Your task to perform on an android device: manage bookmarks in the chrome app Image 0: 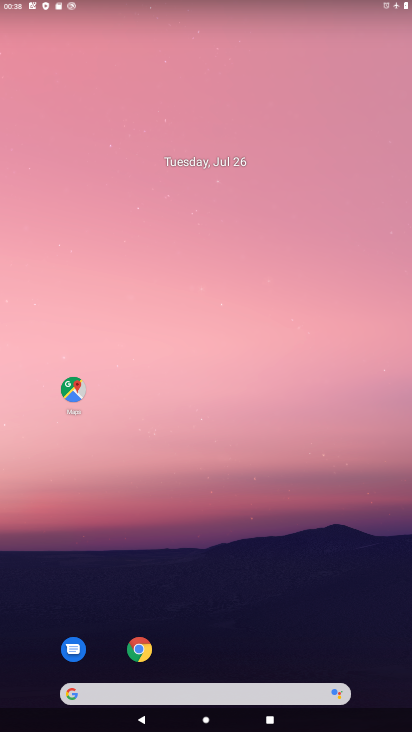
Step 0: click (140, 648)
Your task to perform on an android device: manage bookmarks in the chrome app Image 1: 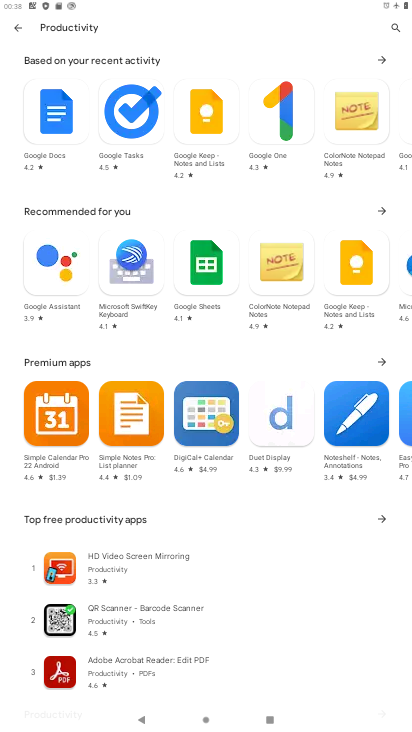
Step 1: press home button
Your task to perform on an android device: manage bookmarks in the chrome app Image 2: 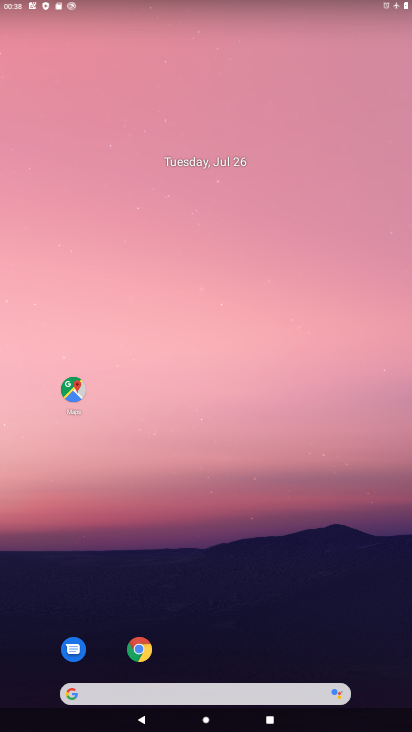
Step 2: drag from (221, 725) to (191, 123)
Your task to perform on an android device: manage bookmarks in the chrome app Image 3: 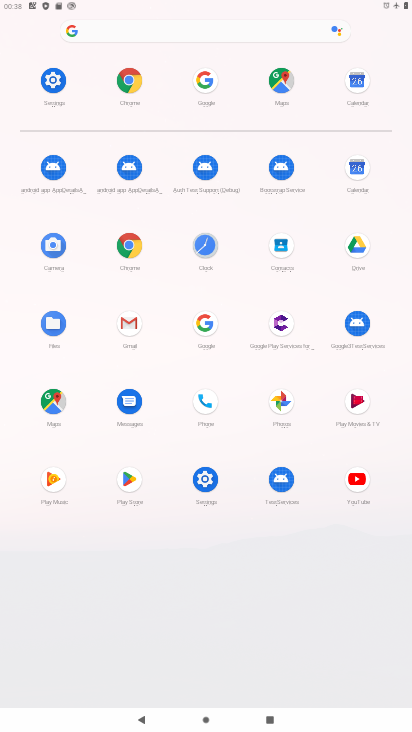
Step 3: click (127, 246)
Your task to perform on an android device: manage bookmarks in the chrome app Image 4: 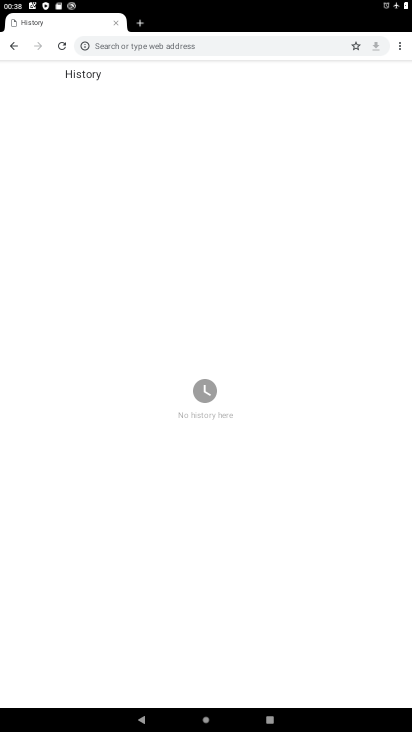
Step 4: click (402, 50)
Your task to perform on an android device: manage bookmarks in the chrome app Image 5: 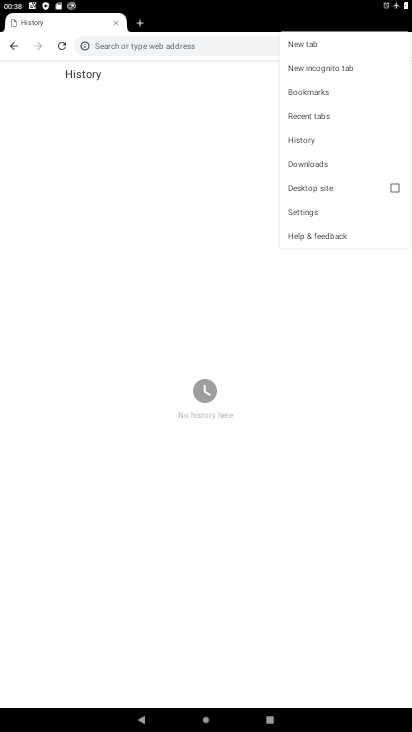
Step 5: click (308, 93)
Your task to perform on an android device: manage bookmarks in the chrome app Image 6: 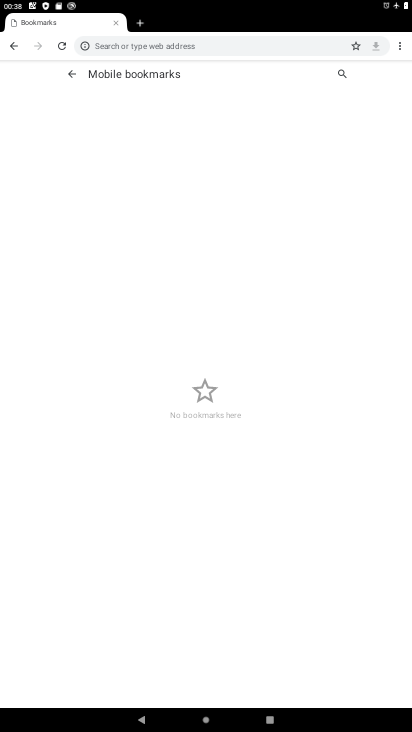
Step 6: task complete